Your task to perform on an android device: clear all cookies in the chrome app Image 0: 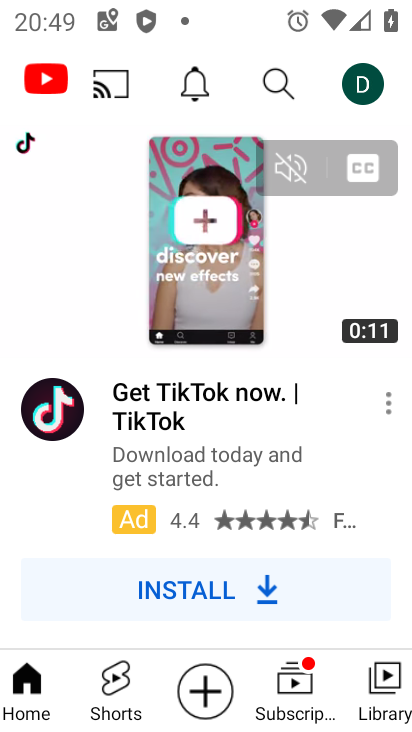
Step 0: press home button
Your task to perform on an android device: clear all cookies in the chrome app Image 1: 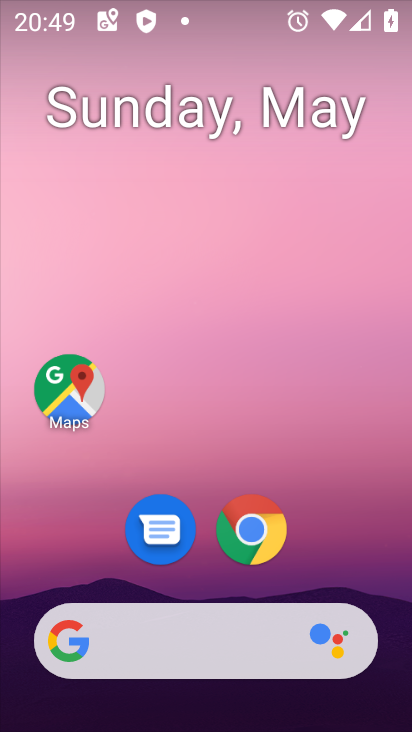
Step 1: click (255, 537)
Your task to perform on an android device: clear all cookies in the chrome app Image 2: 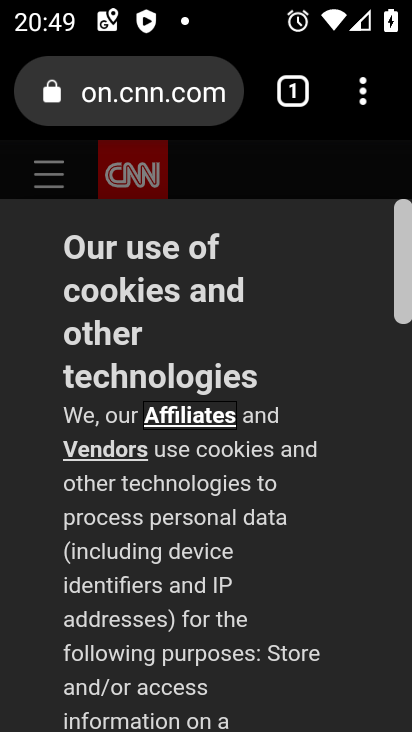
Step 2: click (361, 91)
Your task to perform on an android device: clear all cookies in the chrome app Image 3: 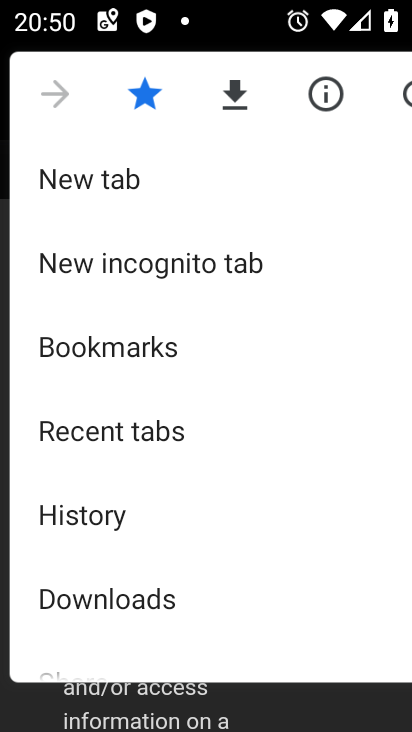
Step 3: drag from (232, 599) to (234, 201)
Your task to perform on an android device: clear all cookies in the chrome app Image 4: 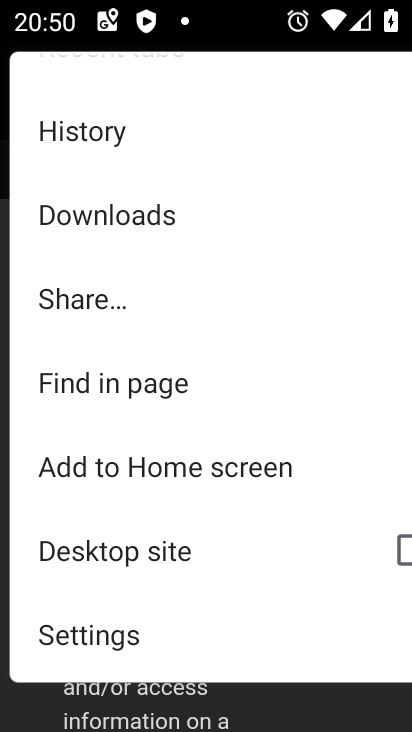
Step 4: drag from (226, 599) to (229, 340)
Your task to perform on an android device: clear all cookies in the chrome app Image 5: 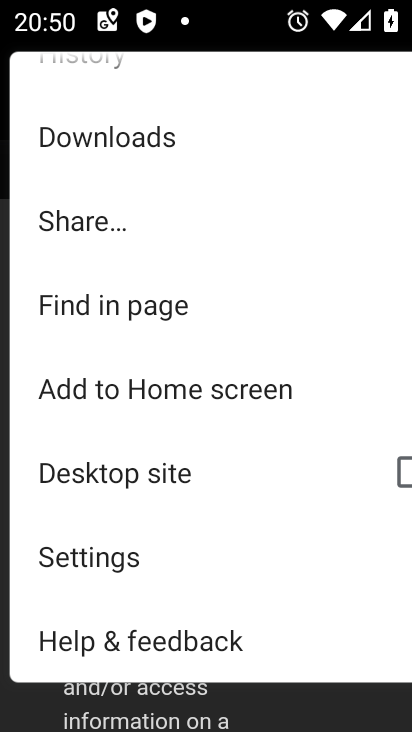
Step 5: click (94, 556)
Your task to perform on an android device: clear all cookies in the chrome app Image 6: 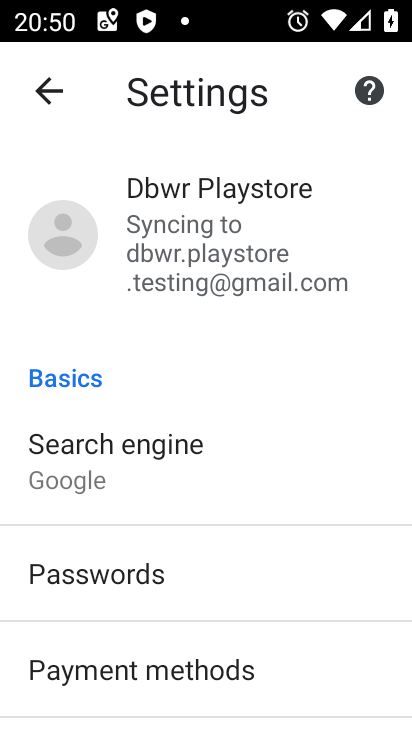
Step 6: drag from (304, 617) to (288, 104)
Your task to perform on an android device: clear all cookies in the chrome app Image 7: 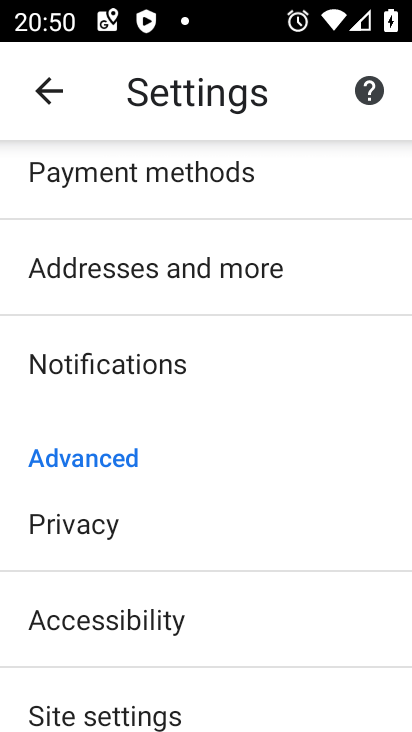
Step 7: click (38, 528)
Your task to perform on an android device: clear all cookies in the chrome app Image 8: 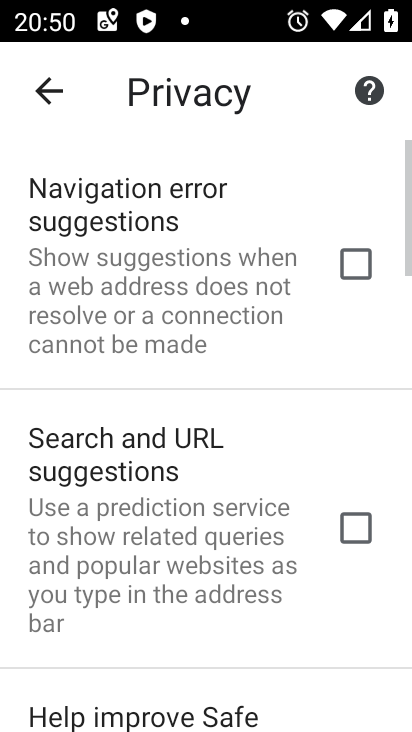
Step 8: drag from (152, 611) to (139, 108)
Your task to perform on an android device: clear all cookies in the chrome app Image 9: 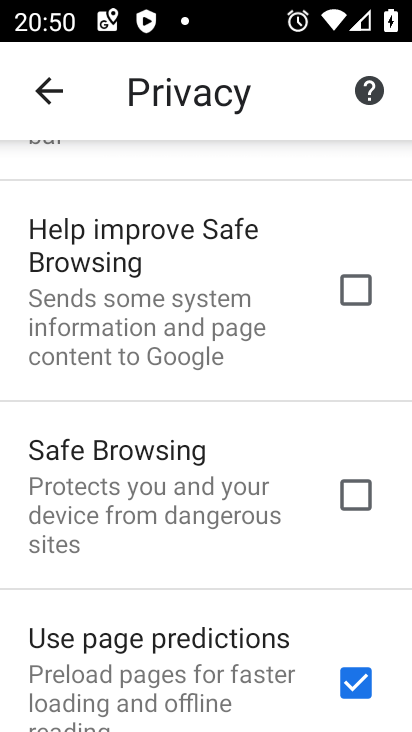
Step 9: drag from (153, 609) to (134, 114)
Your task to perform on an android device: clear all cookies in the chrome app Image 10: 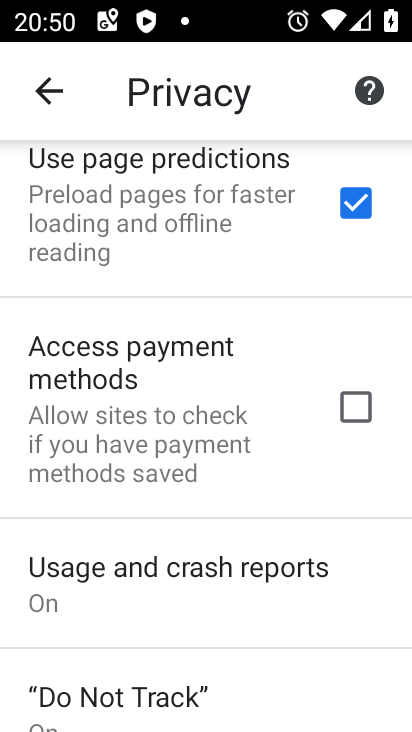
Step 10: drag from (158, 520) to (126, 126)
Your task to perform on an android device: clear all cookies in the chrome app Image 11: 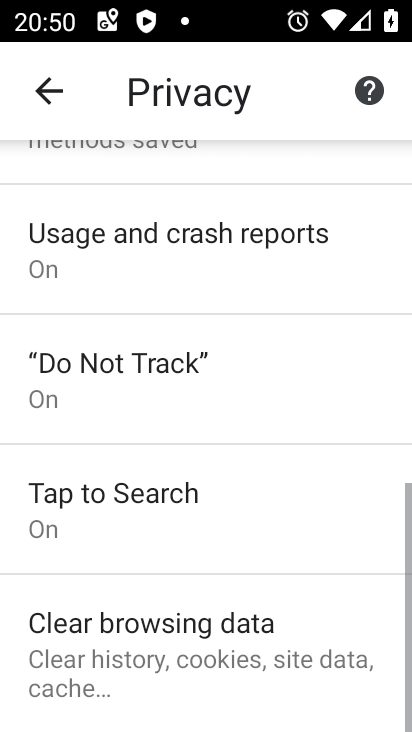
Step 11: drag from (131, 560) to (133, 203)
Your task to perform on an android device: clear all cookies in the chrome app Image 12: 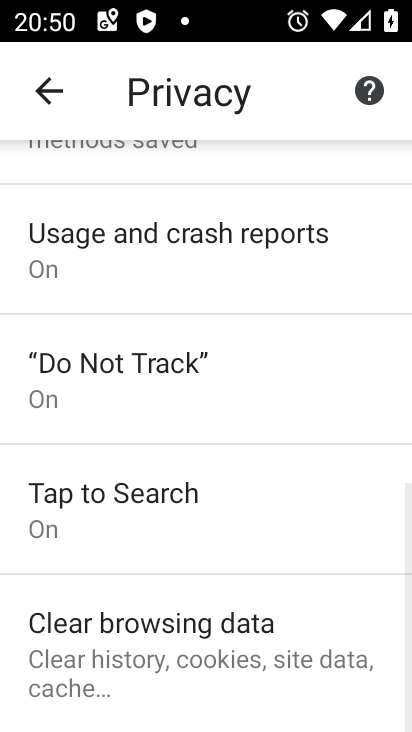
Step 12: click (125, 640)
Your task to perform on an android device: clear all cookies in the chrome app Image 13: 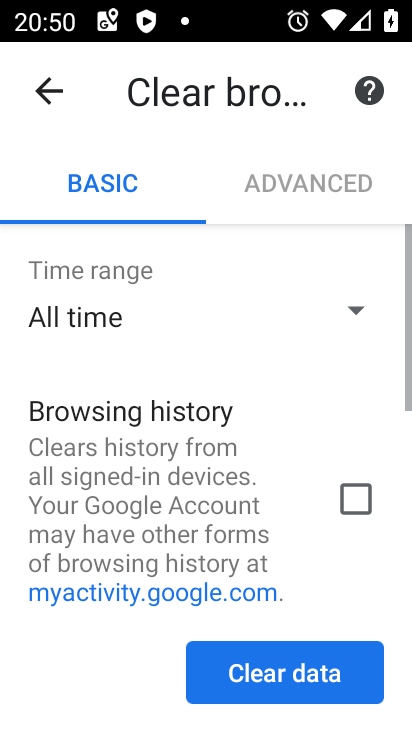
Step 13: drag from (139, 555) to (141, 60)
Your task to perform on an android device: clear all cookies in the chrome app Image 14: 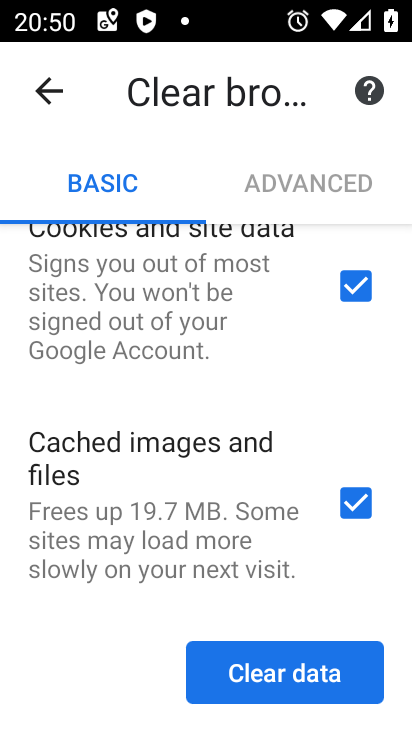
Step 14: click (366, 508)
Your task to perform on an android device: clear all cookies in the chrome app Image 15: 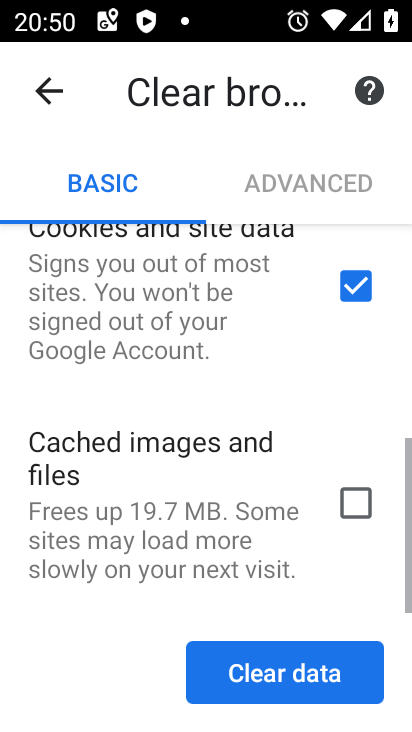
Step 15: drag from (155, 346) to (9, 634)
Your task to perform on an android device: clear all cookies in the chrome app Image 16: 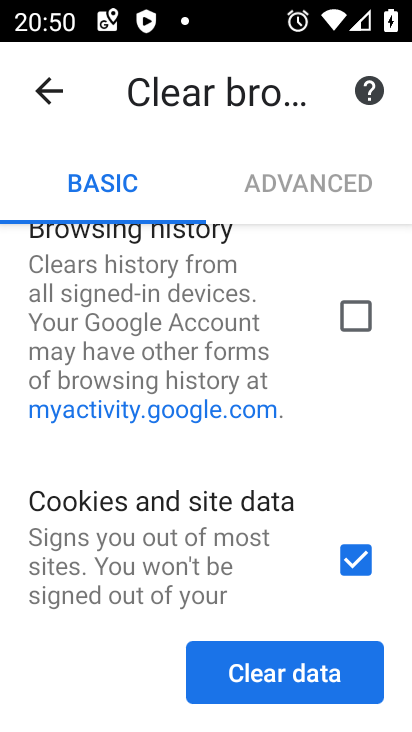
Step 16: drag from (79, 513) to (106, 142)
Your task to perform on an android device: clear all cookies in the chrome app Image 17: 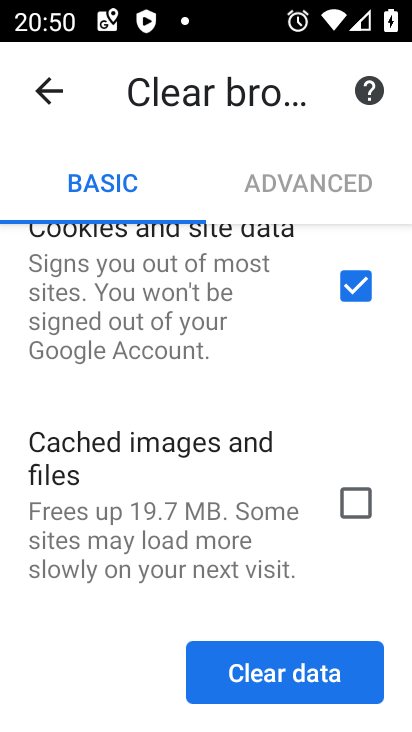
Step 17: click (298, 674)
Your task to perform on an android device: clear all cookies in the chrome app Image 18: 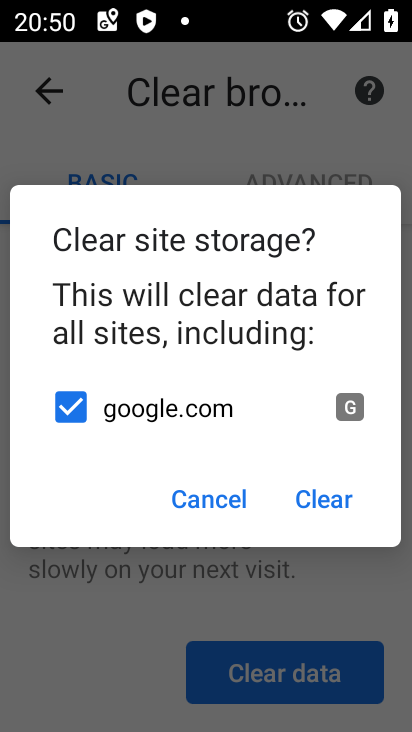
Step 18: click (325, 503)
Your task to perform on an android device: clear all cookies in the chrome app Image 19: 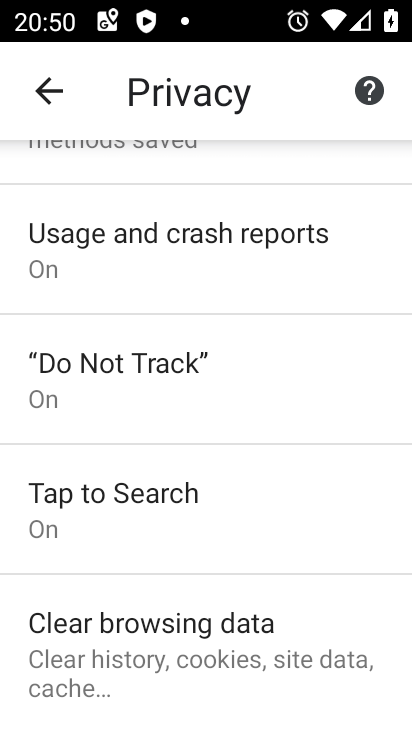
Step 19: task complete